Your task to perform on an android device: Go to privacy settings Image 0: 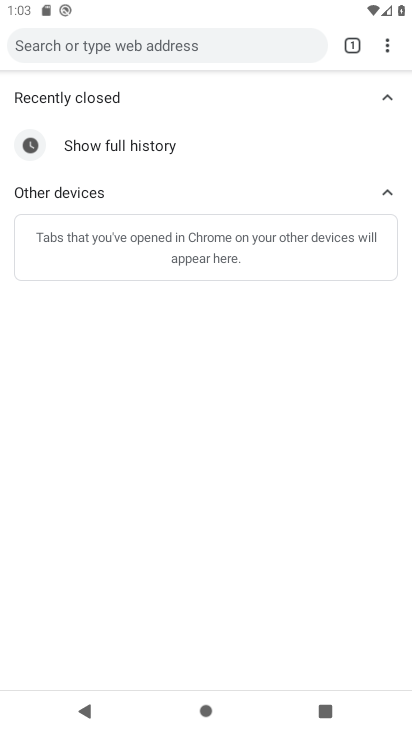
Step 0: press home button
Your task to perform on an android device: Go to privacy settings Image 1: 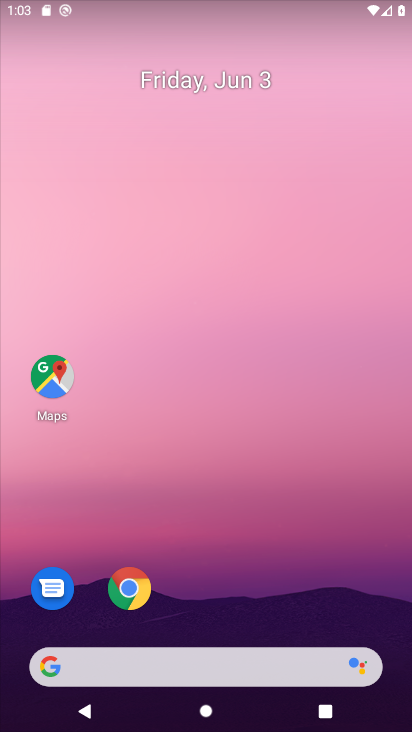
Step 1: drag from (273, 611) to (237, 285)
Your task to perform on an android device: Go to privacy settings Image 2: 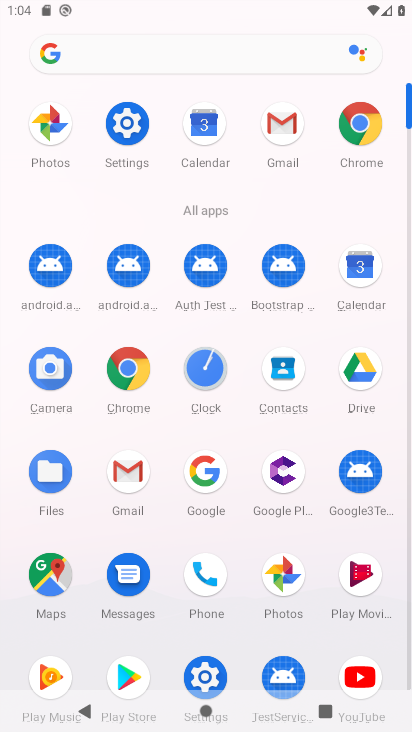
Step 2: click (125, 108)
Your task to perform on an android device: Go to privacy settings Image 3: 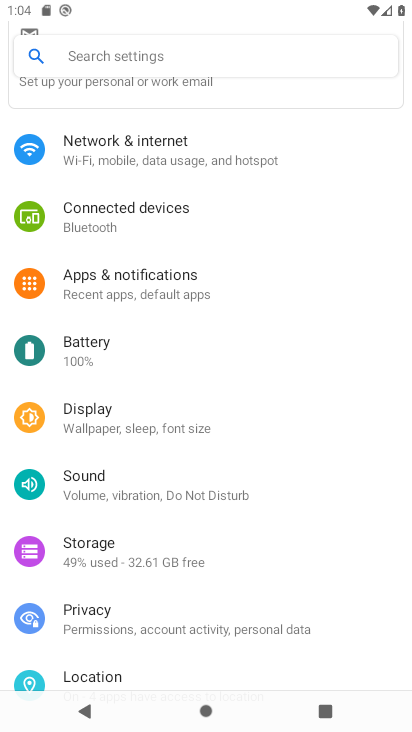
Step 3: click (178, 623)
Your task to perform on an android device: Go to privacy settings Image 4: 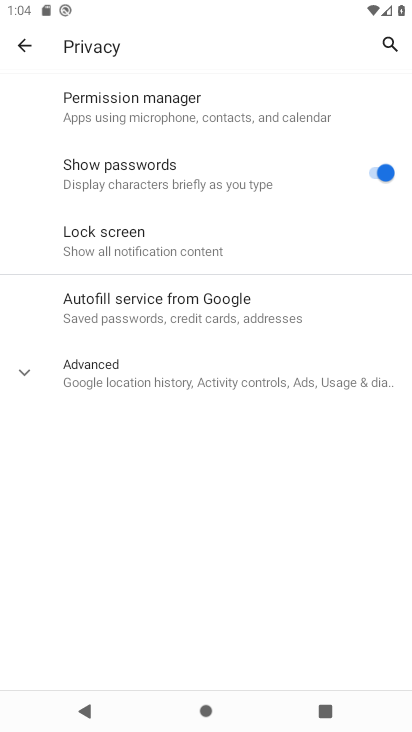
Step 4: task complete